Your task to perform on an android device: Go to sound settings Image 0: 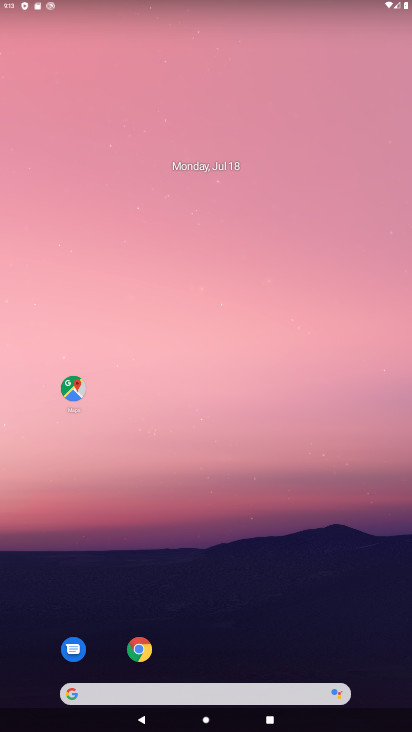
Step 0: drag from (20, 714) to (194, 115)
Your task to perform on an android device: Go to sound settings Image 1: 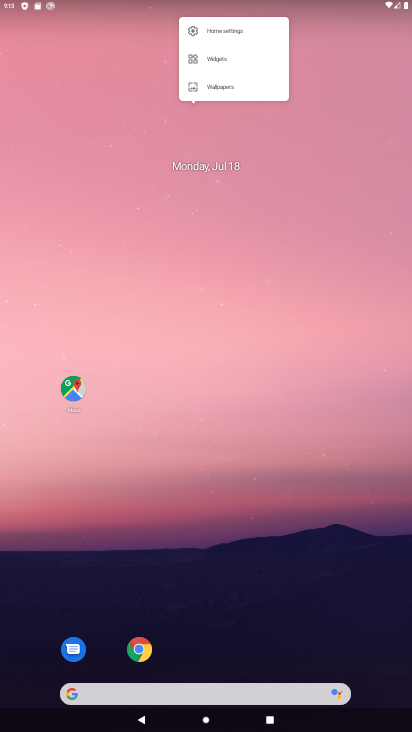
Step 1: drag from (28, 582) to (245, 177)
Your task to perform on an android device: Go to sound settings Image 2: 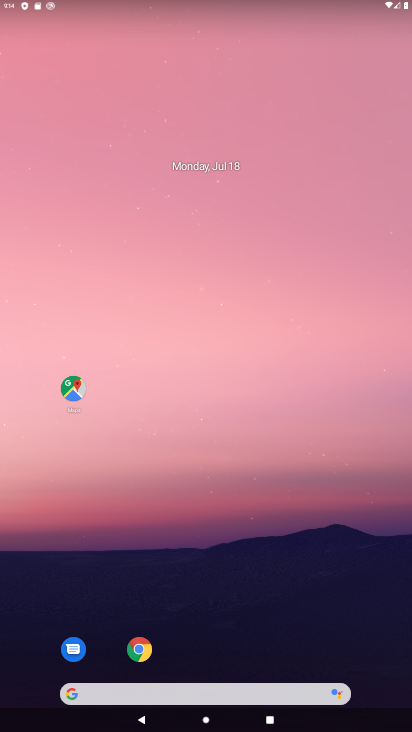
Step 2: drag from (58, 592) to (234, 83)
Your task to perform on an android device: Go to sound settings Image 3: 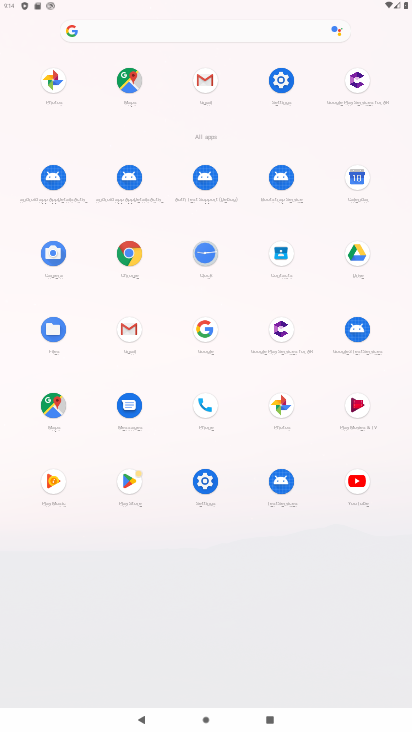
Step 3: click (214, 491)
Your task to perform on an android device: Go to sound settings Image 4: 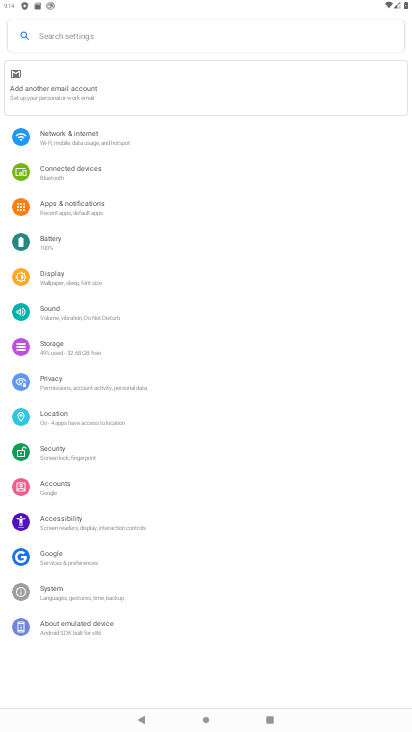
Step 4: click (99, 307)
Your task to perform on an android device: Go to sound settings Image 5: 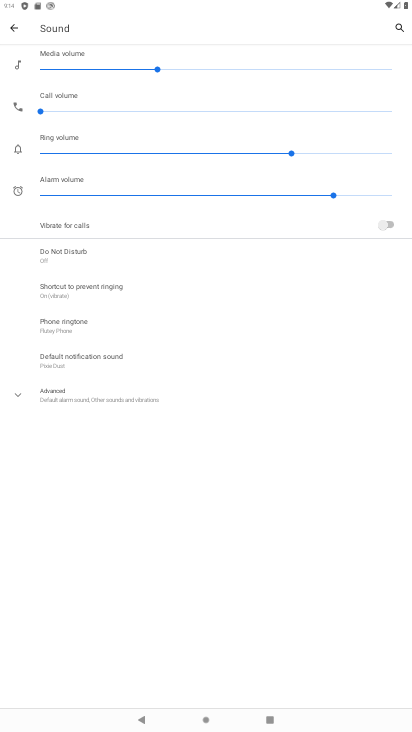
Step 5: task complete